Your task to perform on an android device: Go to Android settings Image 0: 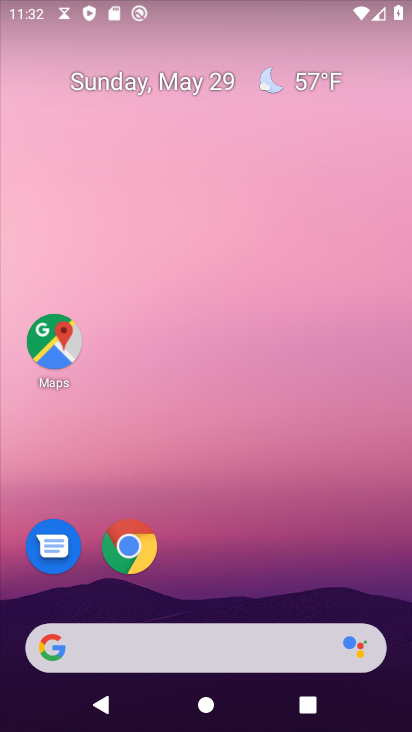
Step 0: press home button
Your task to perform on an android device: Go to Android settings Image 1: 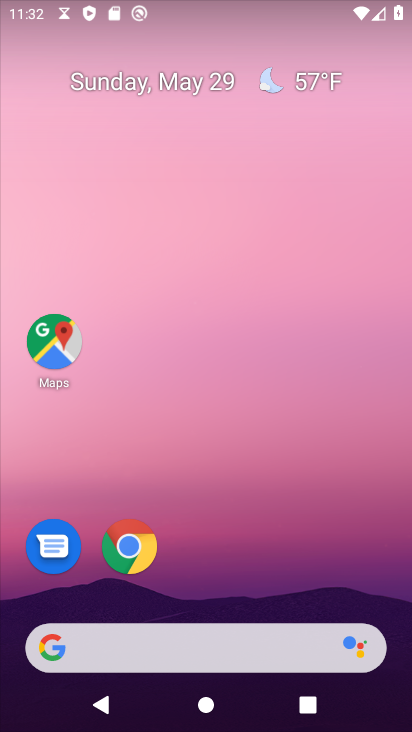
Step 1: drag from (265, 266) to (323, 112)
Your task to perform on an android device: Go to Android settings Image 2: 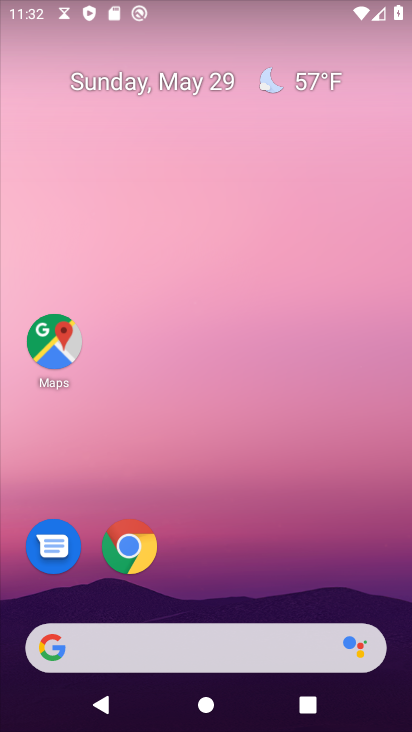
Step 2: drag from (213, 649) to (341, 146)
Your task to perform on an android device: Go to Android settings Image 3: 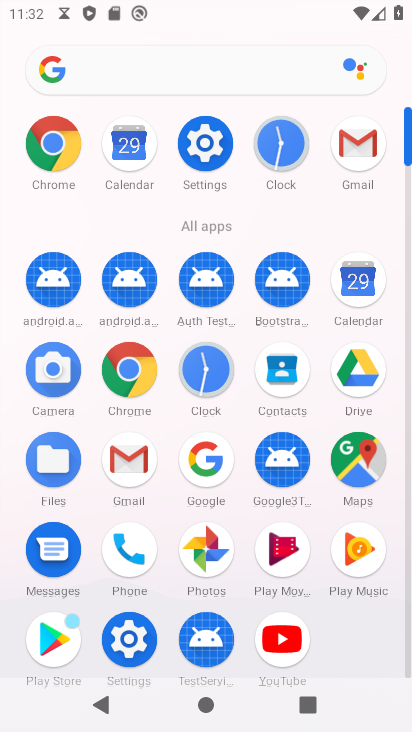
Step 3: click (208, 152)
Your task to perform on an android device: Go to Android settings Image 4: 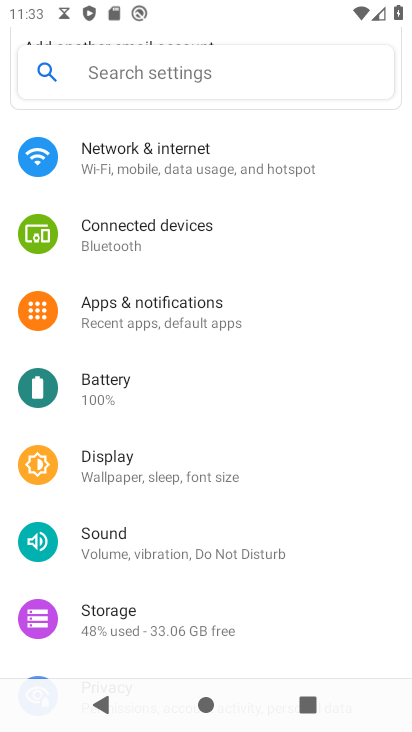
Step 4: task complete